Your task to perform on an android device: install app "Contacts" Image 0: 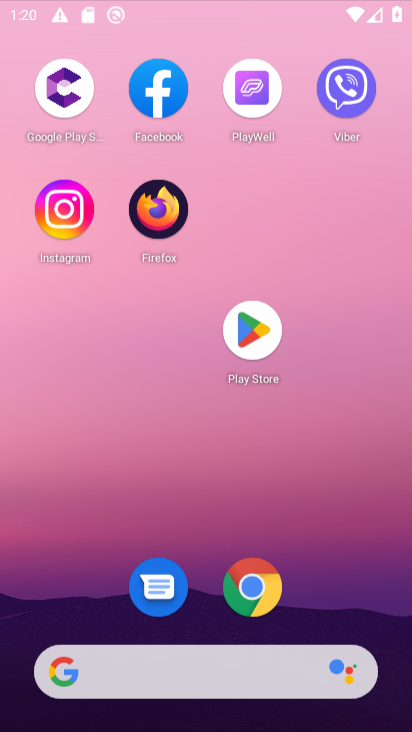
Step 0: press home button
Your task to perform on an android device: install app "Contacts" Image 1: 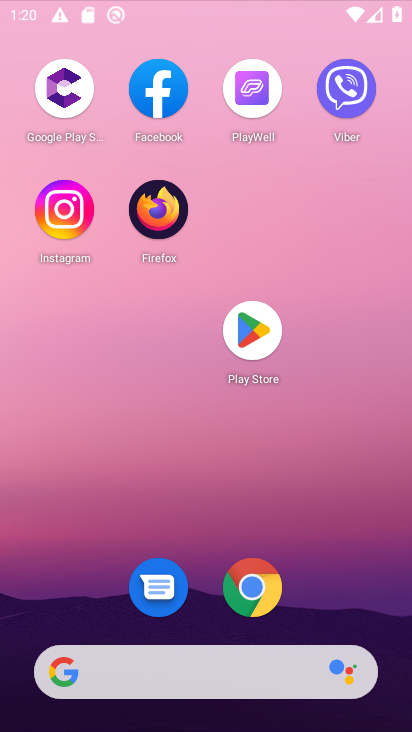
Step 1: press home button
Your task to perform on an android device: install app "Contacts" Image 2: 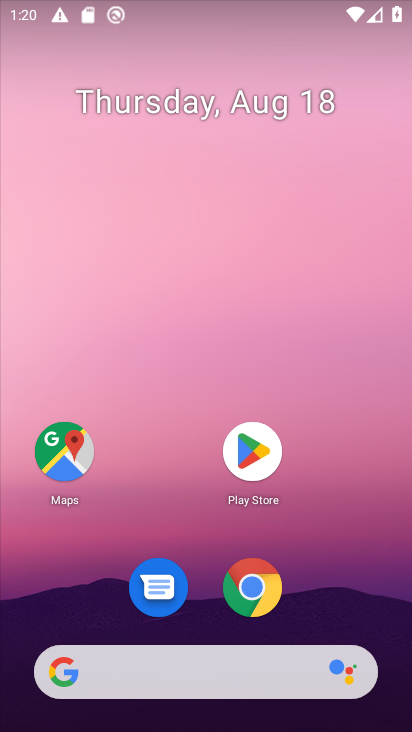
Step 2: press home button
Your task to perform on an android device: install app "Contacts" Image 3: 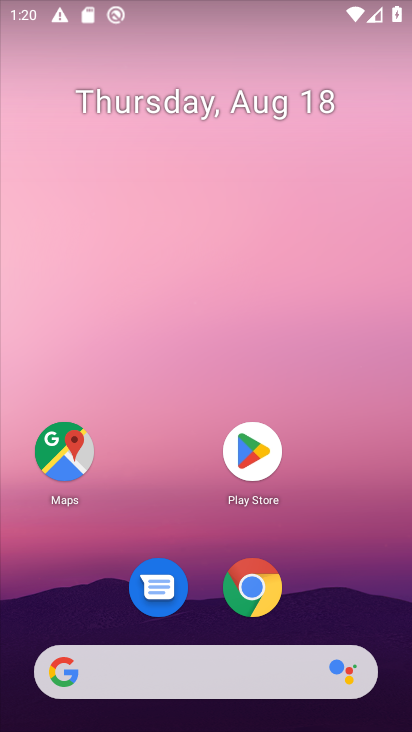
Step 3: click (254, 454)
Your task to perform on an android device: install app "Contacts" Image 4: 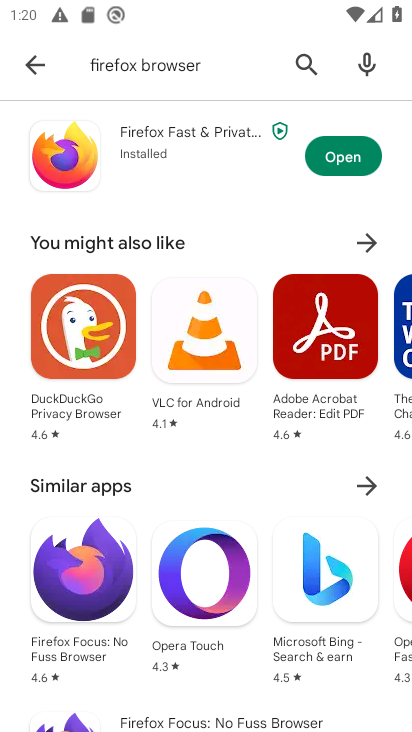
Step 4: click (303, 67)
Your task to perform on an android device: install app "Contacts" Image 5: 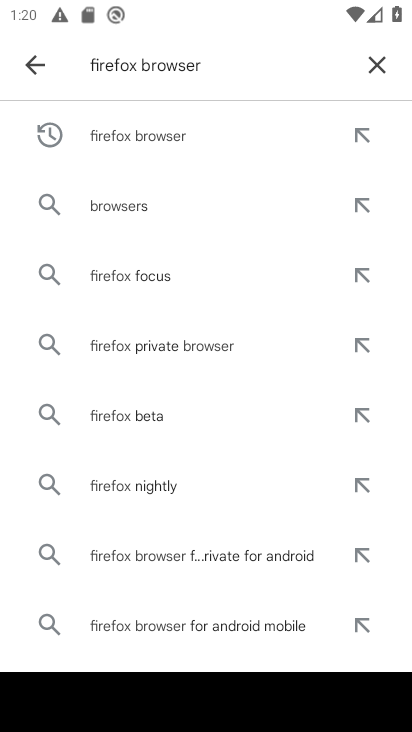
Step 5: click (377, 67)
Your task to perform on an android device: install app "Contacts" Image 6: 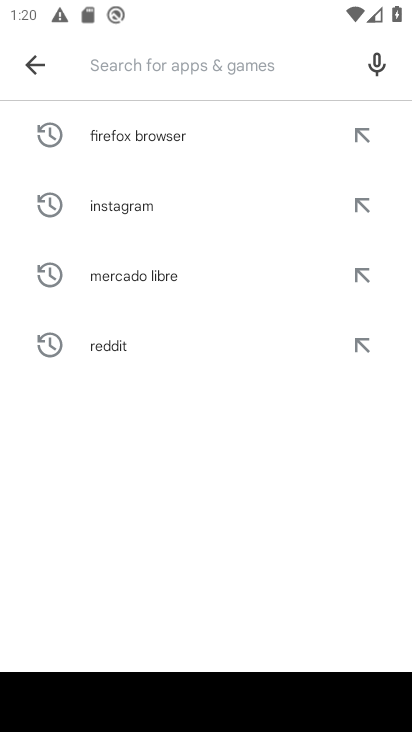
Step 6: type "Contacts"
Your task to perform on an android device: install app "Contacts" Image 7: 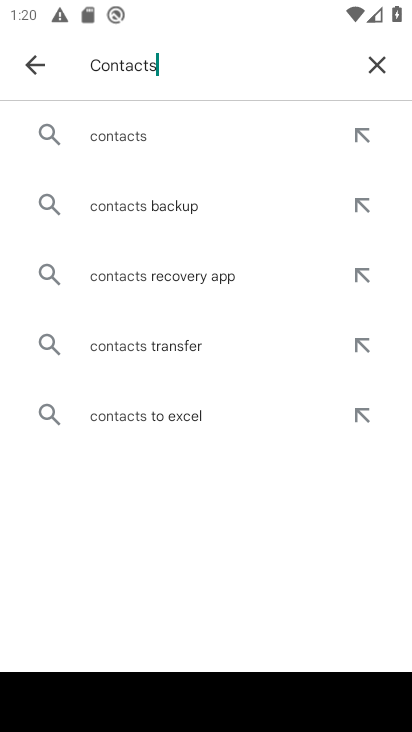
Step 7: click (109, 135)
Your task to perform on an android device: install app "Contacts" Image 8: 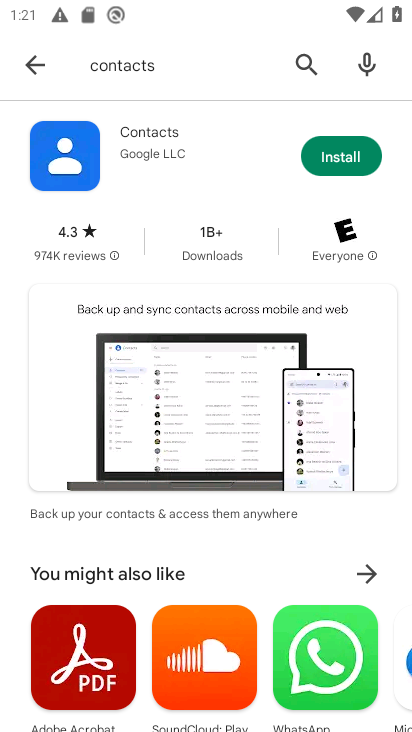
Step 8: click (345, 162)
Your task to perform on an android device: install app "Contacts" Image 9: 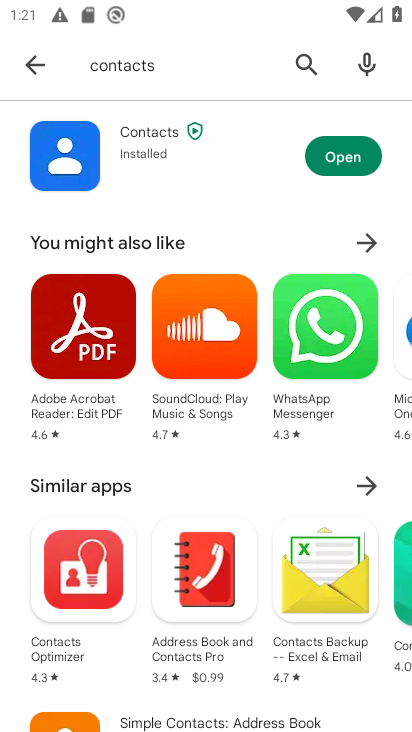
Step 9: task complete